Your task to perform on an android device: Go to ESPN.com Image 0: 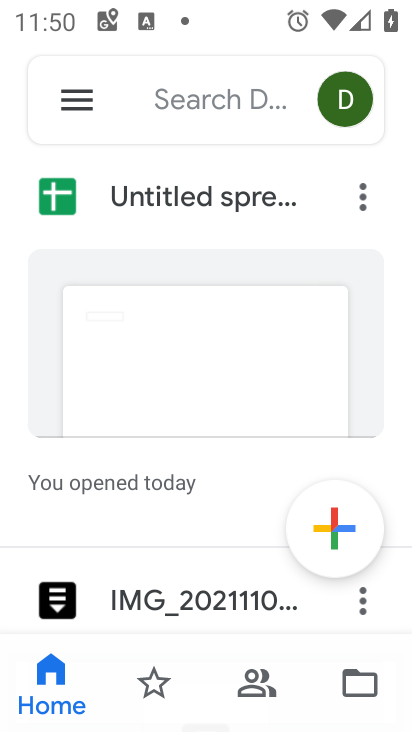
Step 0: press home button
Your task to perform on an android device: Go to ESPN.com Image 1: 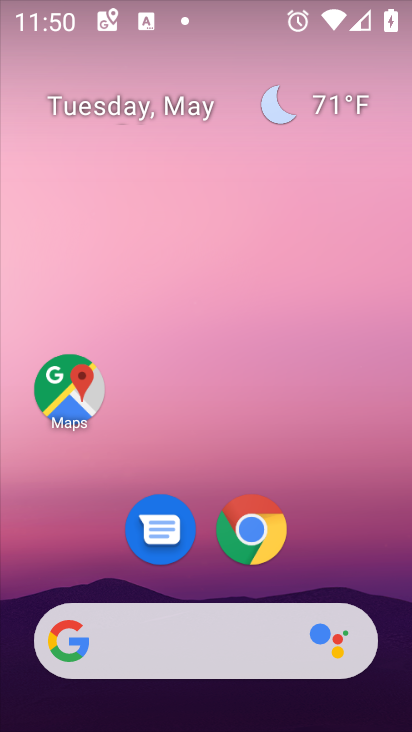
Step 1: drag from (211, 582) to (169, 34)
Your task to perform on an android device: Go to ESPN.com Image 2: 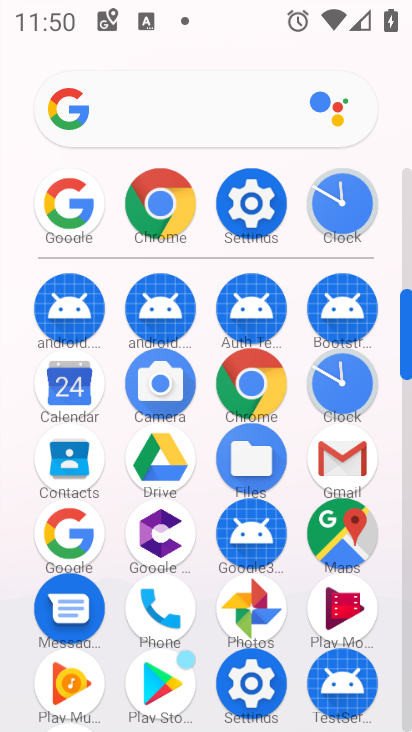
Step 2: click (163, 226)
Your task to perform on an android device: Go to ESPN.com Image 3: 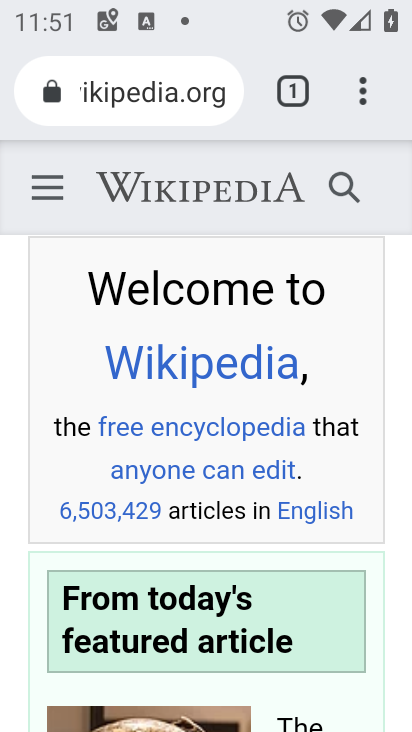
Step 3: click (118, 97)
Your task to perform on an android device: Go to ESPN.com Image 4: 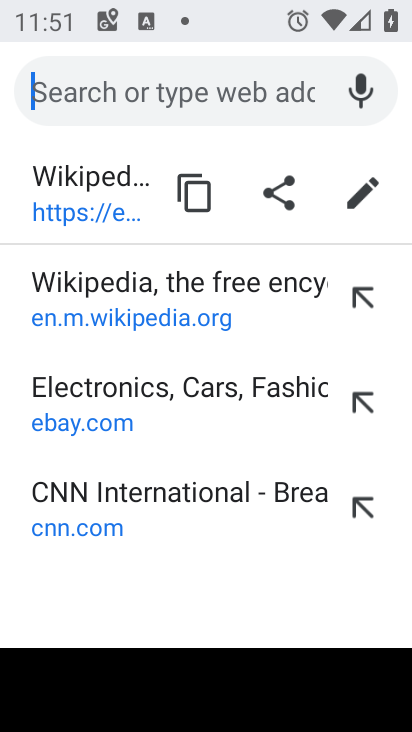
Step 4: type "espn"
Your task to perform on an android device: Go to ESPN.com Image 5: 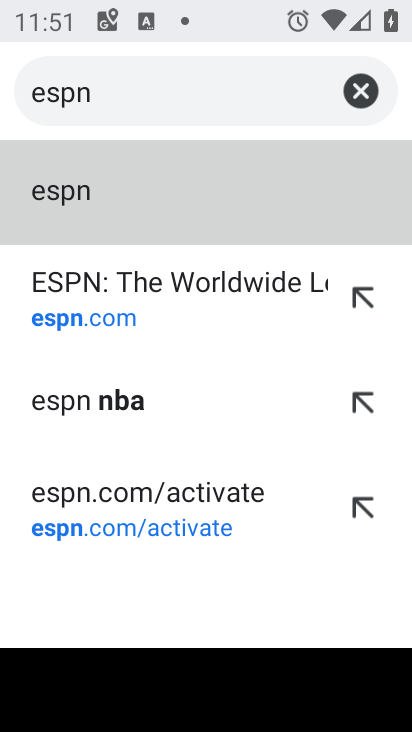
Step 5: click (162, 299)
Your task to perform on an android device: Go to ESPN.com Image 6: 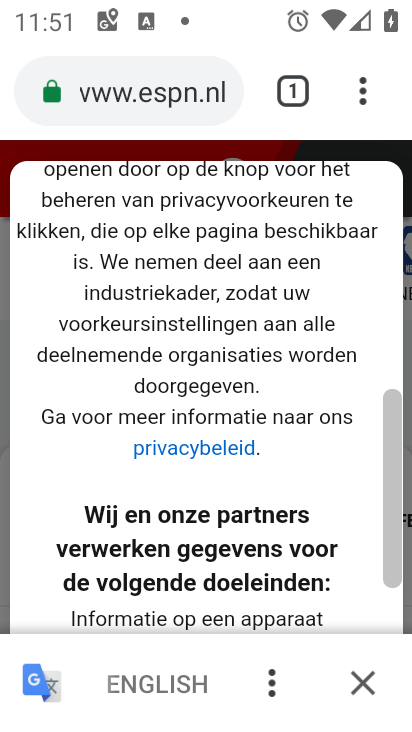
Step 6: task complete